Your task to perform on an android device: toggle data saver in the chrome app Image 0: 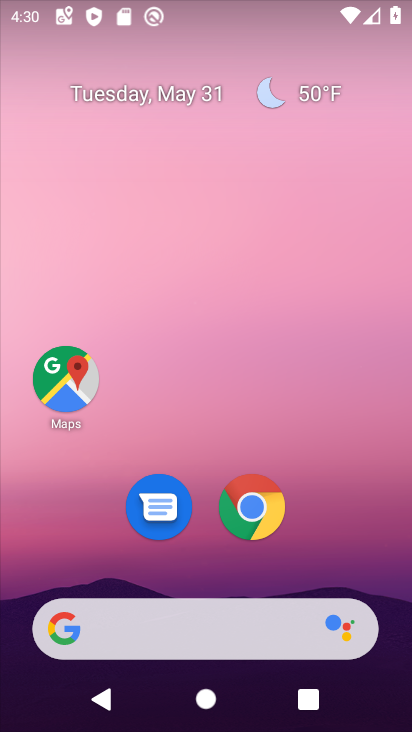
Step 0: click (272, 505)
Your task to perform on an android device: toggle data saver in the chrome app Image 1: 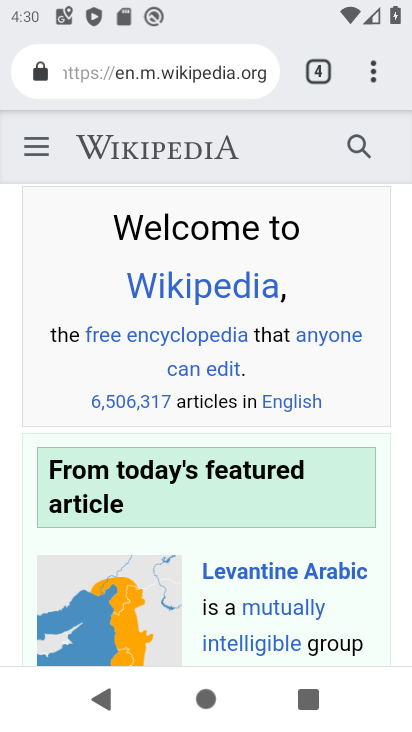
Step 1: click (365, 75)
Your task to perform on an android device: toggle data saver in the chrome app Image 2: 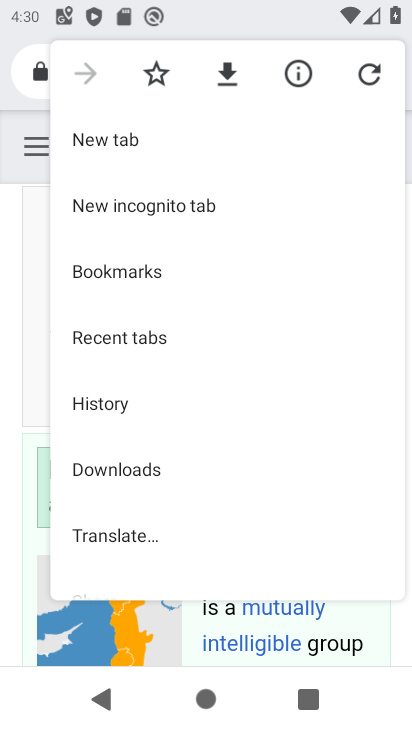
Step 2: drag from (260, 457) to (287, 59)
Your task to perform on an android device: toggle data saver in the chrome app Image 3: 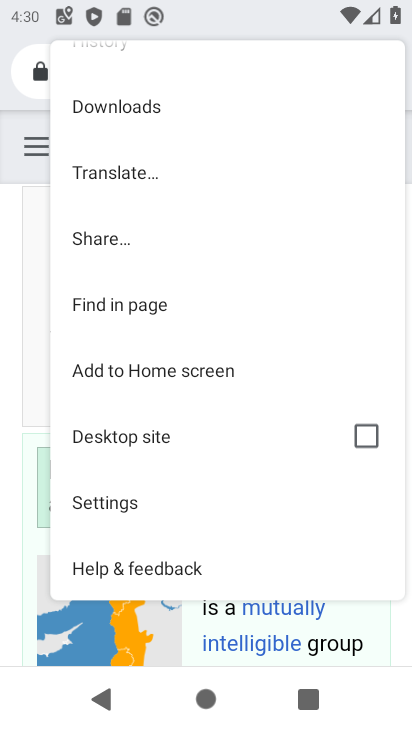
Step 3: click (175, 496)
Your task to perform on an android device: toggle data saver in the chrome app Image 4: 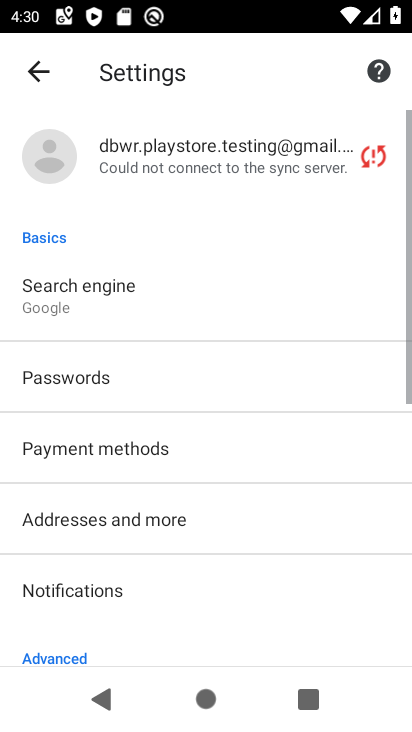
Step 4: drag from (245, 563) to (271, 42)
Your task to perform on an android device: toggle data saver in the chrome app Image 5: 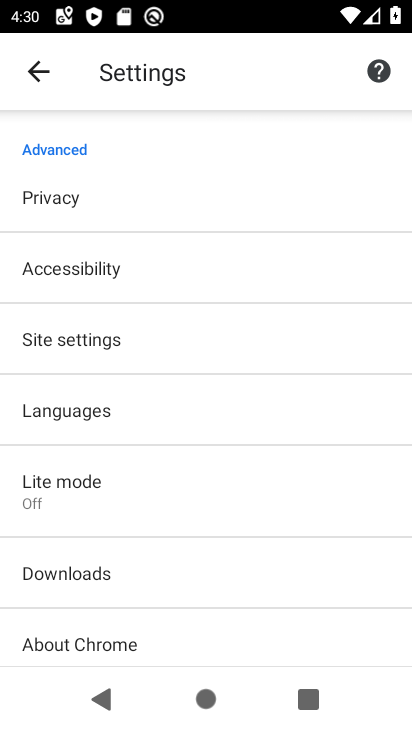
Step 5: click (164, 499)
Your task to perform on an android device: toggle data saver in the chrome app Image 6: 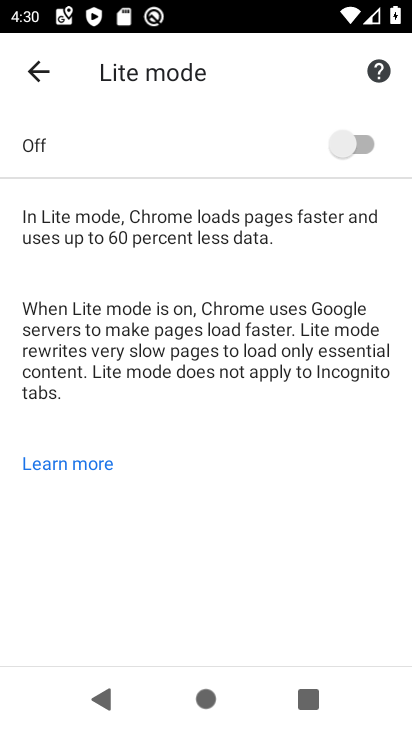
Step 6: click (354, 141)
Your task to perform on an android device: toggle data saver in the chrome app Image 7: 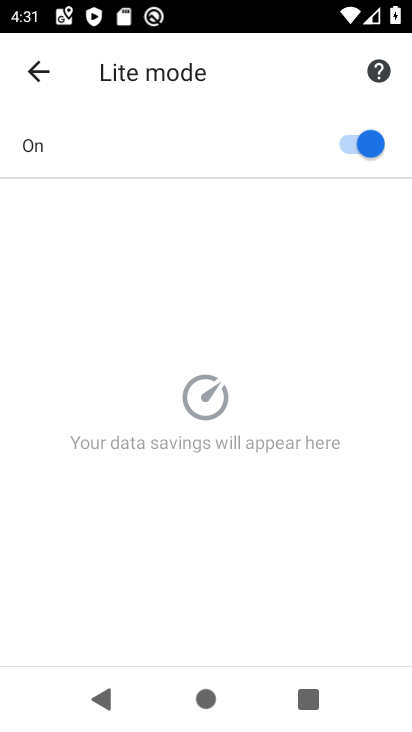
Step 7: task complete